Your task to perform on an android device: What's the weather today? Image 0: 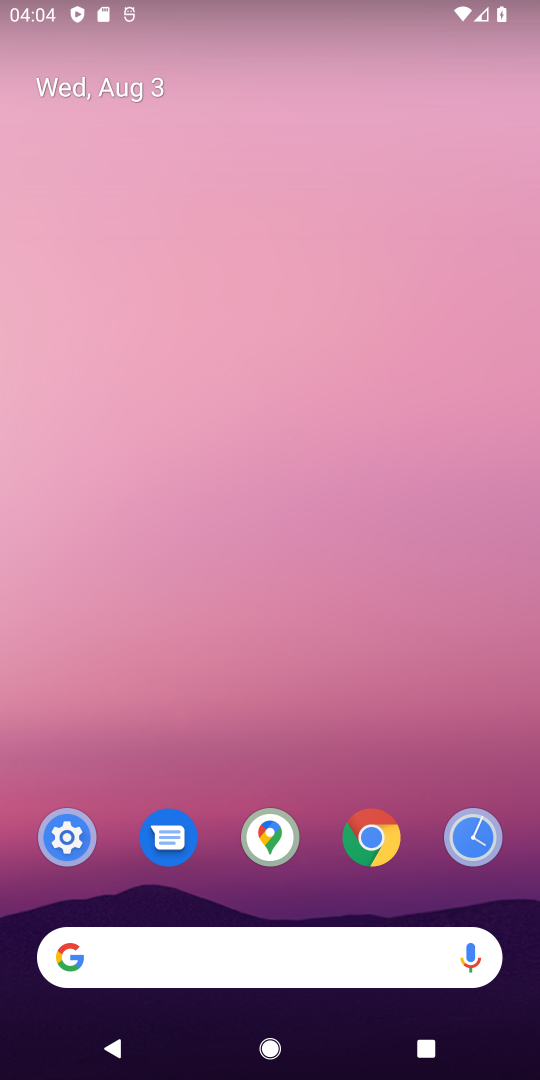
Step 0: click (155, 954)
Your task to perform on an android device: What's the weather today? Image 1: 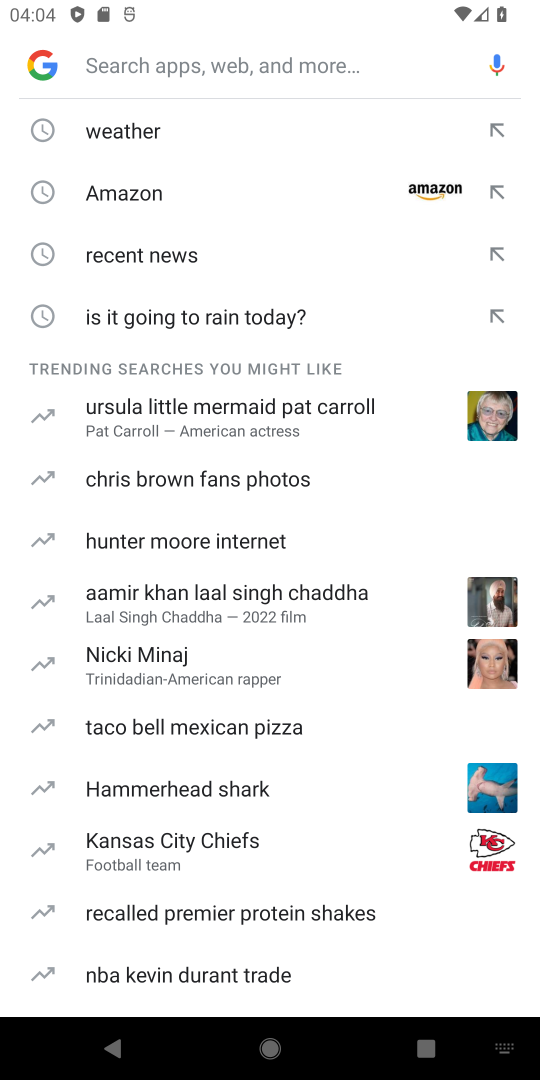
Step 1: click (123, 129)
Your task to perform on an android device: What's the weather today? Image 2: 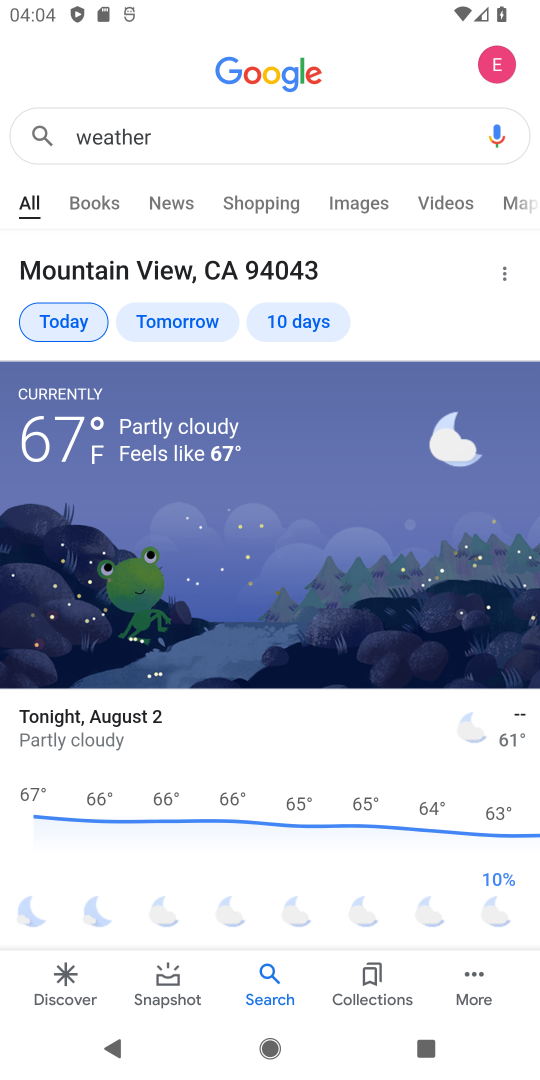
Step 2: task complete